Your task to perform on an android device: turn vacation reply on in the gmail app Image 0: 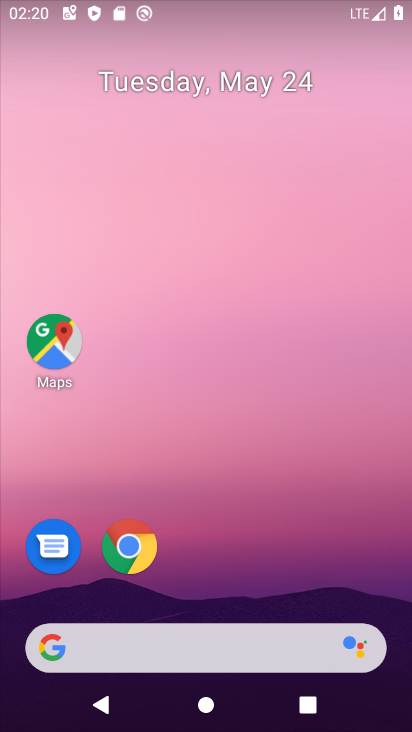
Step 0: drag from (252, 598) to (268, 252)
Your task to perform on an android device: turn vacation reply on in the gmail app Image 1: 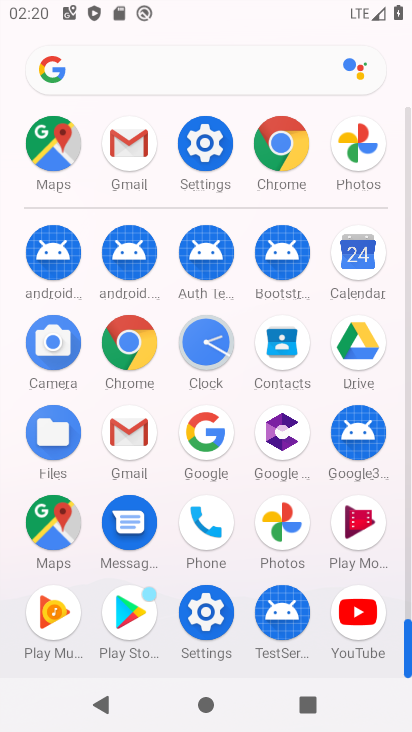
Step 1: click (132, 426)
Your task to perform on an android device: turn vacation reply on in the gmail app Image 2: 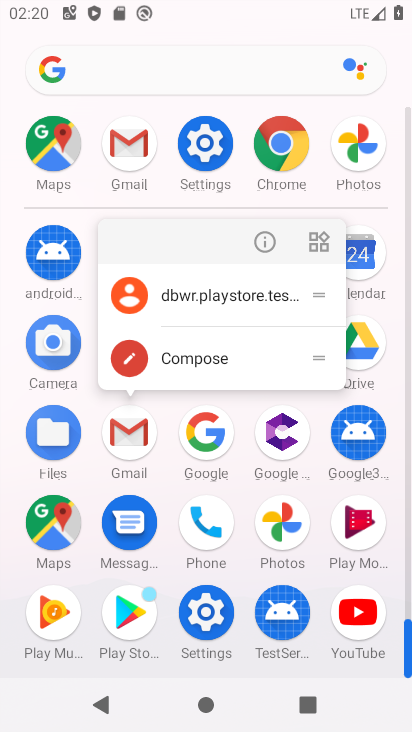
Step 2: click (235, 294)
Your task to perform on an android device: turn vacation reply on in the gmail app Image 3: 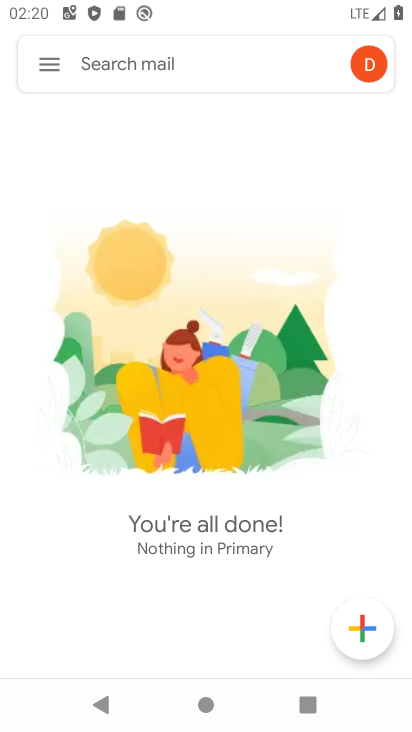
Step 3: click (44, 66)
Your task to perform on an android device: turn vacation reply on in the gmail app Image 4: 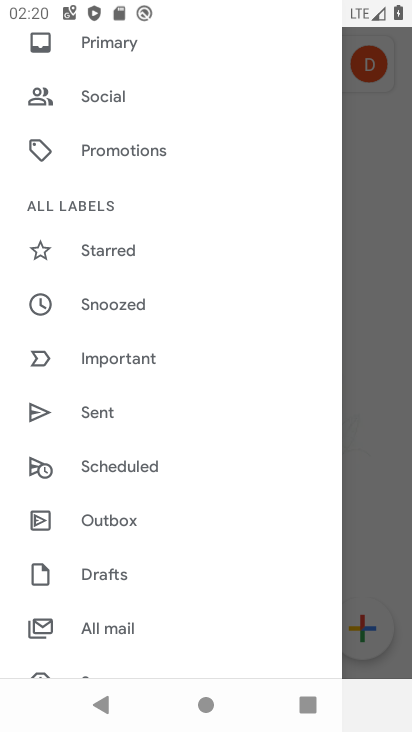
Step 4: drag from (149, 537) to (191, 128)
Your task to perform on an android device: turn vacation reply on in the gmail app Image 5: 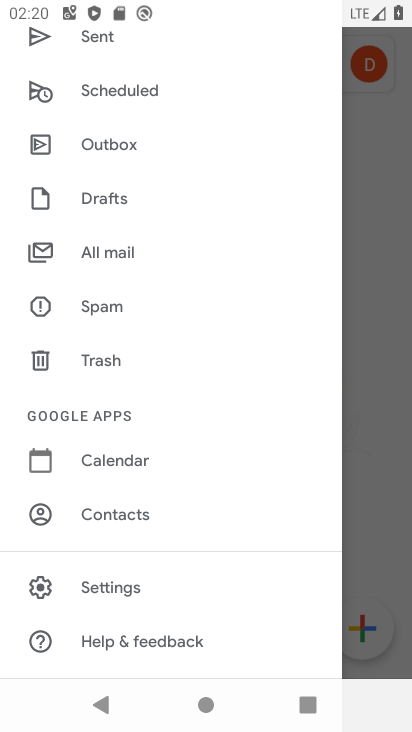
Step 5: click (138, 585)
Your task to perform on an android device: turn vacation reply on in the gmail app Image 6: 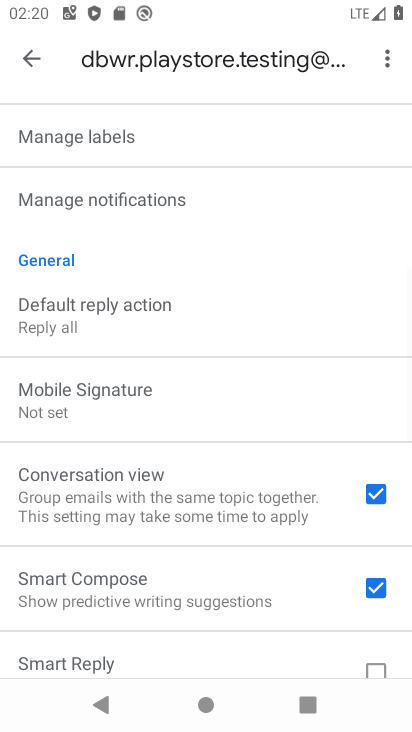
Step 6: drag from (200, 534) to (277, 156)
Your task to perform on an android device: turn vacation reply on in the gmail app Image 7: 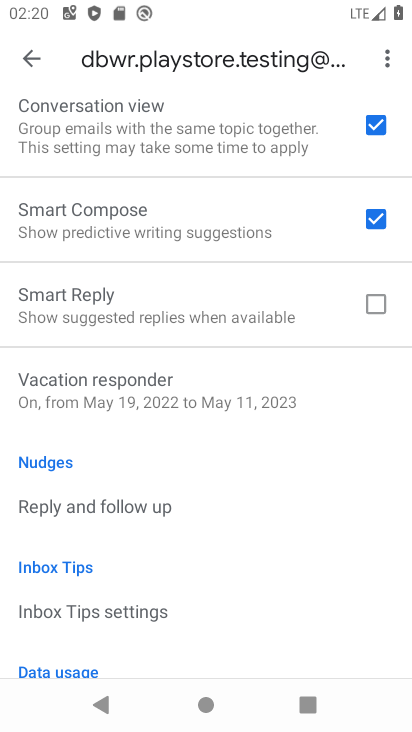
Step 7: click (177, 378)
Your task to perform on an android device: turn vacation reply on in the gmail app Image 8: 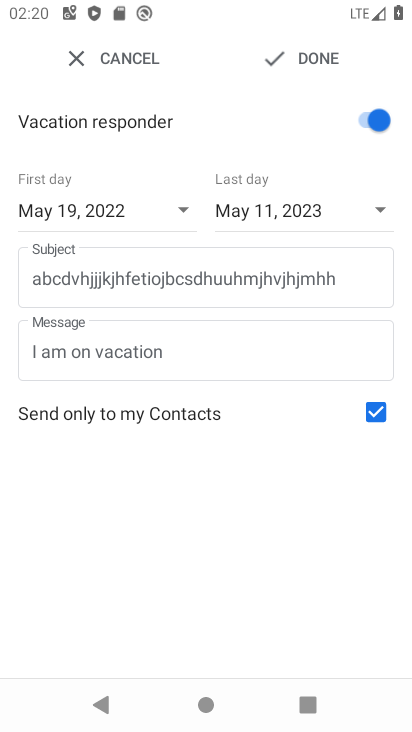
Step 8: click (301, 56)
Your task to perform on an android device: turn vacation reply on in the gmail app Image 9: 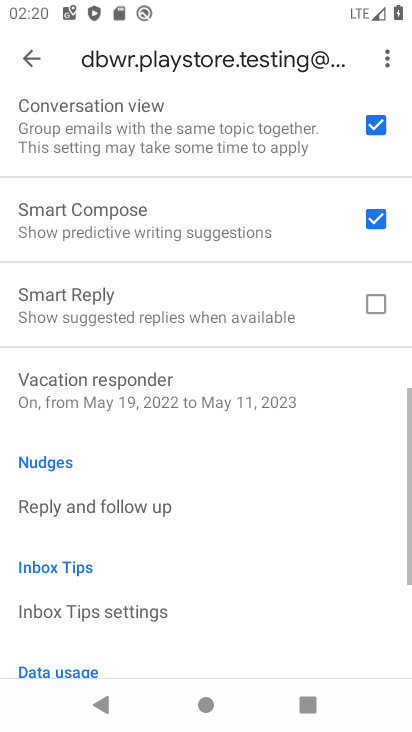
Step 9: task complete